Your task to perform on an android device: Open wifi settings Image 0: 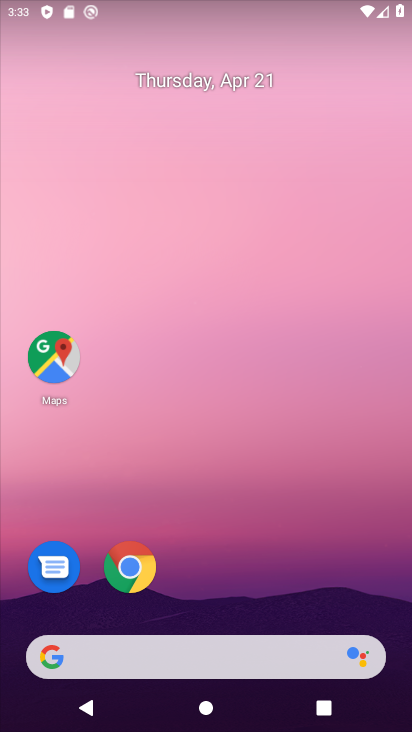
Step 0: drag from (320, 622) to (256, 157)
Your task to perform on an android device: Open wifi settings Image 1: 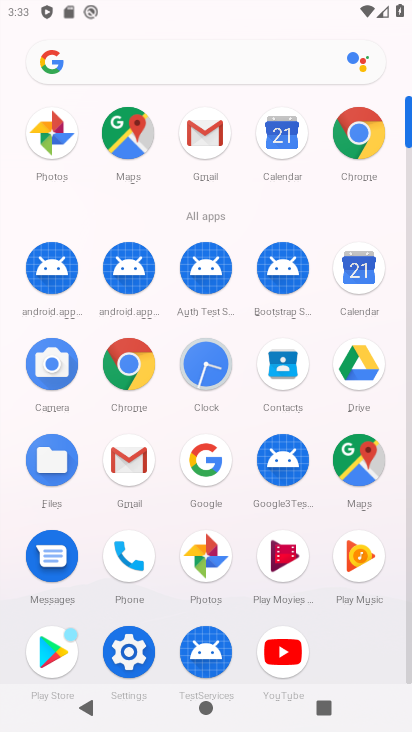
Step 1: click (131, 654)
Your task to perform on an android device: Open wifi settings Image 2: 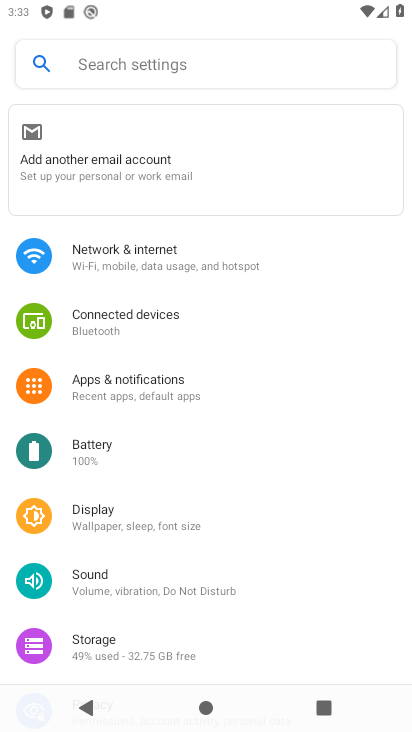
Step 2: drag from (114, 614) to (134, 221)
Your task to perform on an android device: Open wifi settings Image 3: 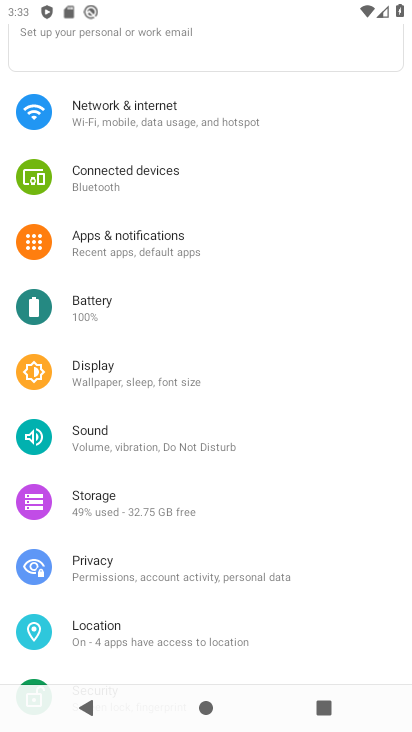
Step 3: click (144, 124)
Your task to perform on an android device: Open wifi settings Image 4: 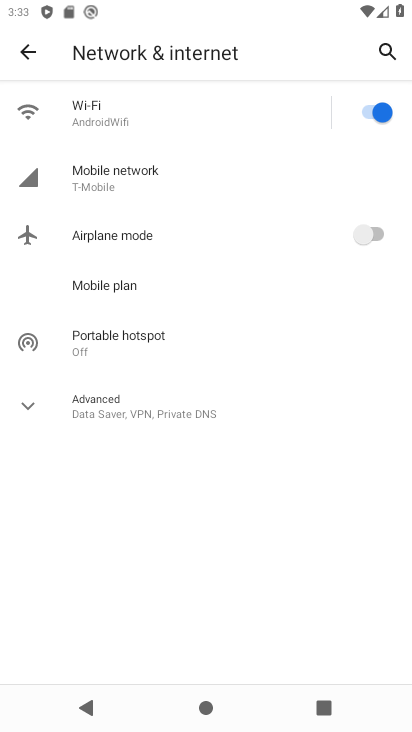
Step 4: click (158, 101)
Your task to perform on an android device: Open wifi settings Image 5: 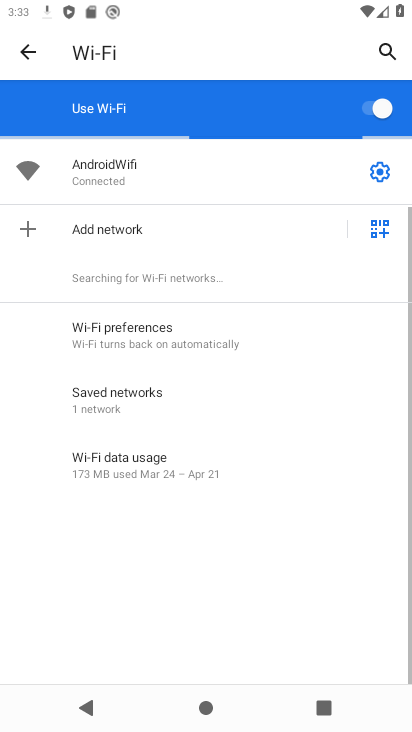
Step 5: task complete